Your task to perform on an android device: Go to Google Image 0: 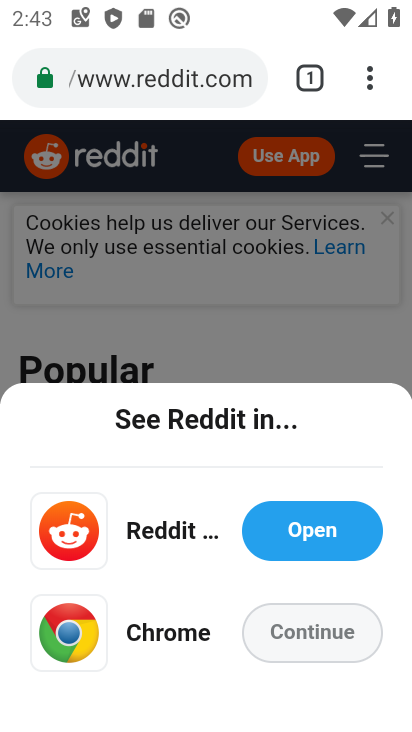
Step 0: press home button
Your task to perform on an android device: Go to Google Image 1: 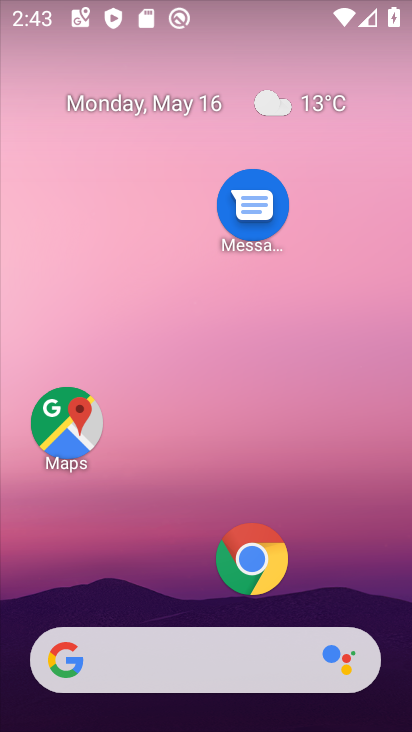
Step 1: drag from (142, 583) to (155, 178)
Your task to perform on an android device: Go to Google Image 2: 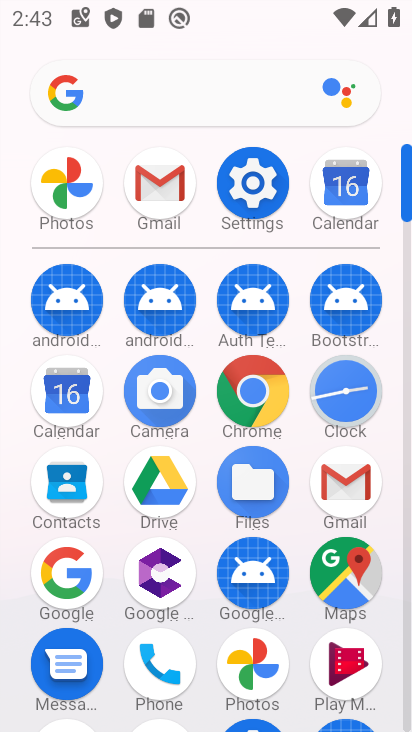
Step 2: click (63, 574)
Your task to perform on an android device: Go to Google Image 3: 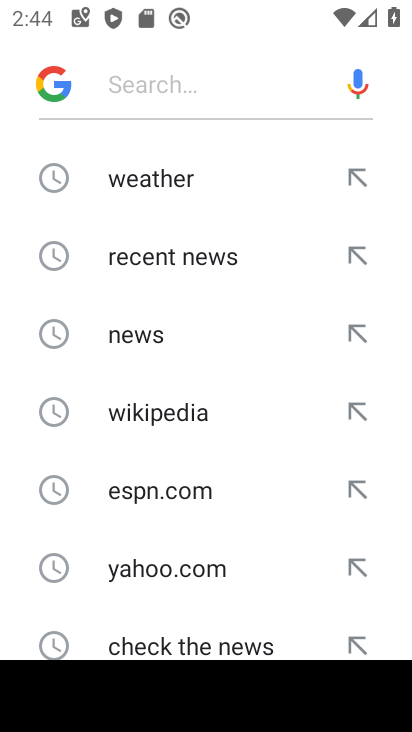
Step 3: task complete